Your task to perform on an android device: What is the news today? Image 0: 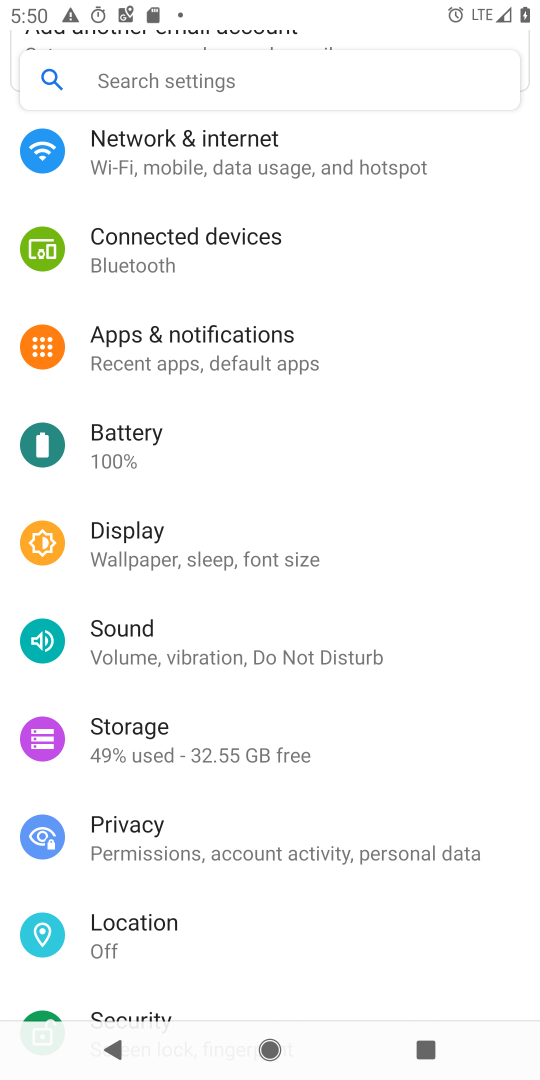
Step 0: press back button
Your task to perform on an android device: What is the news today? Image 1: 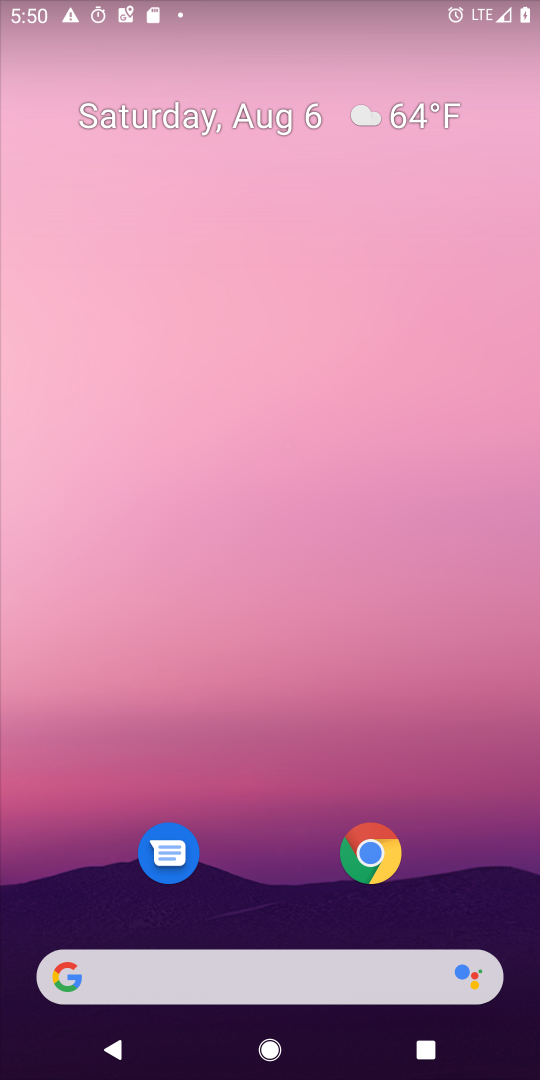
Step 1: click (222, 971)
Your task to perform on an android device: What is the news today? Image 2: 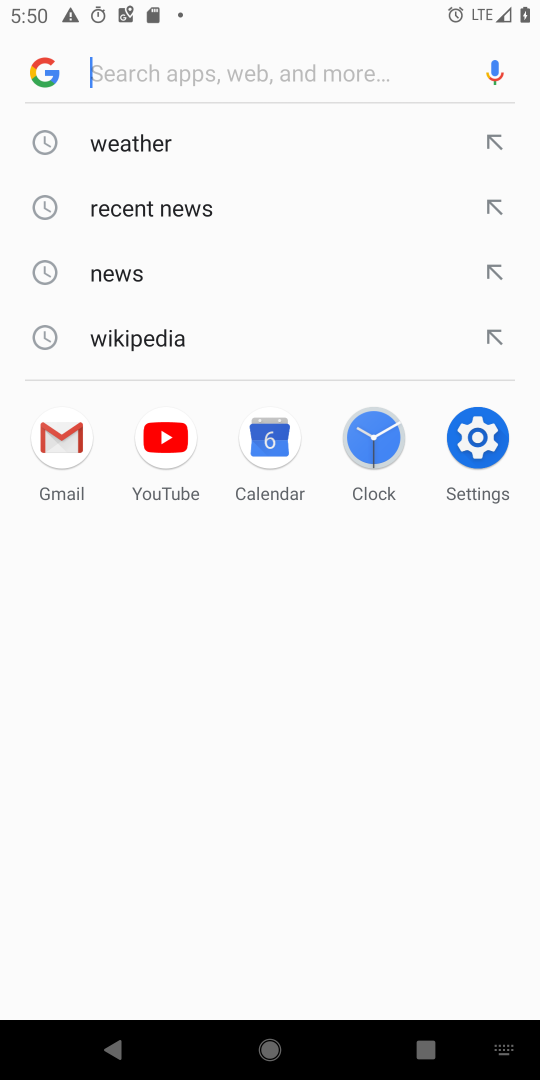
Step 2: click (155, 70)
Your task to perform on an android device: What is the news today? Image 3: 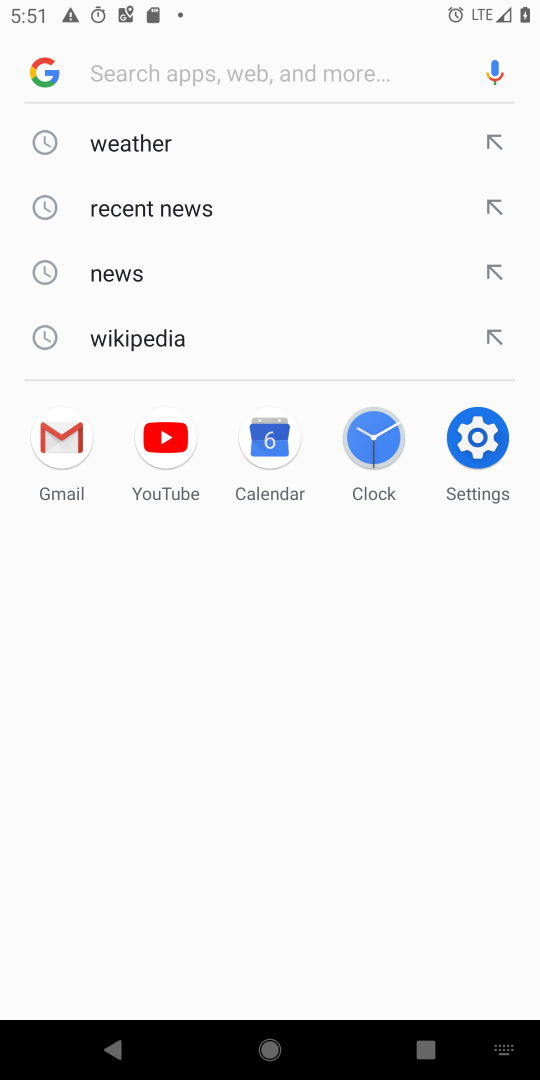
Step 3: type "news today"
Your task to perform on an android device: What is the news today? Image 4: 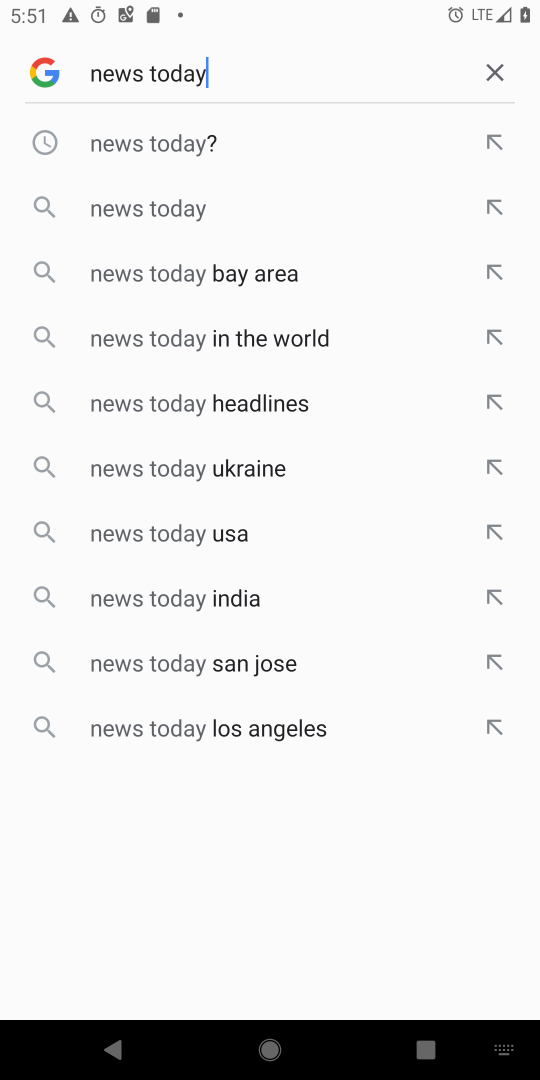
Step 4: click (145, 134)
Your task to perform on an android device: What is the news today? Image 5: 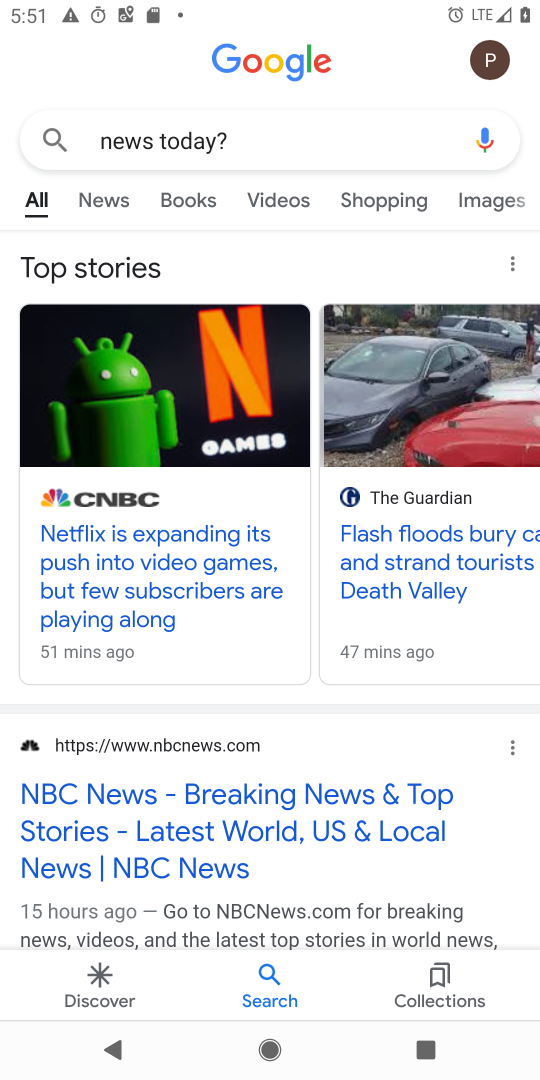
Step 5: task complete